Your task to perform on an android device: toggle location history Image 0: 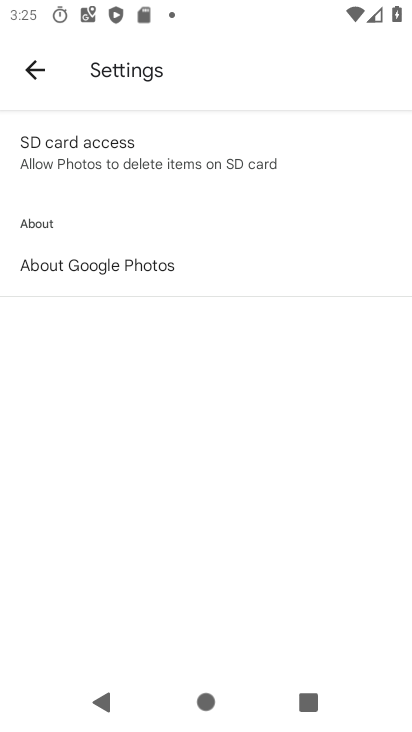
Step 0: press home button
Your task to perform on an android device: toggle location history Image 1: 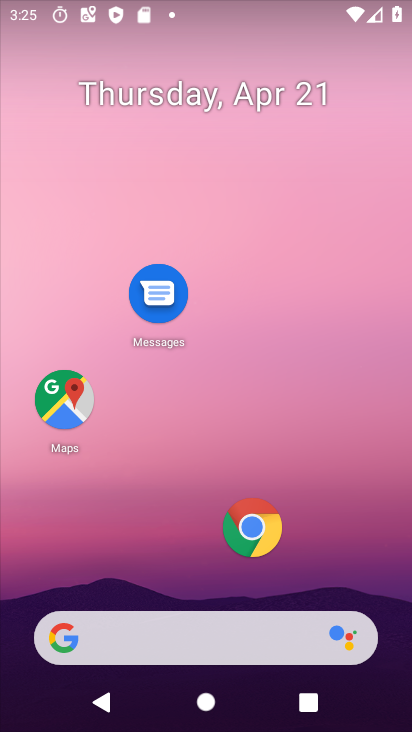
Step 1: drag from (165, 612) to (237, 352)
Your task to perform on an android device: toggle location history Image 2: 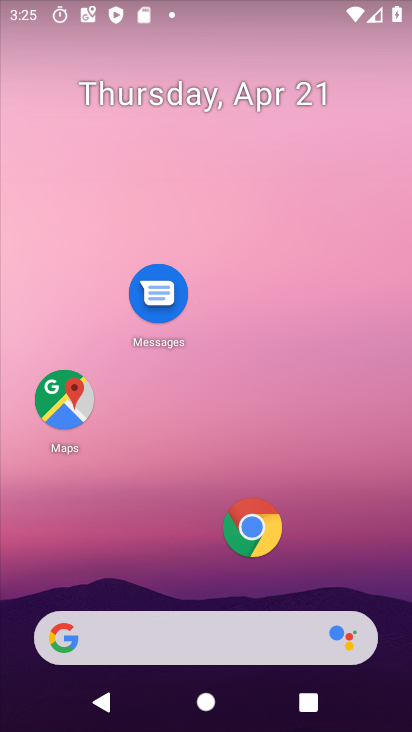
Step 2: drag from (238, 596) to (284, 332)
Your task to perform on an android device: toggle location history Image 3: 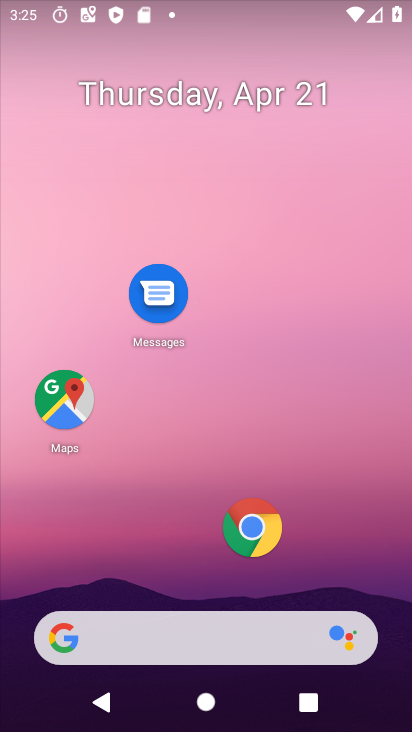
Step 3: drag from (206, 543) to (296, 132)
Your task to perform on an android device: toggle location history Image 4: 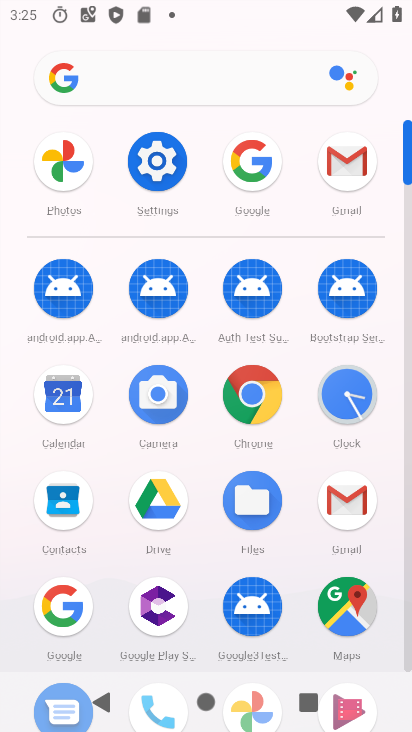
Step 4: click (152, 162)
Your task to perform on an android device: toggle location history Image 5: 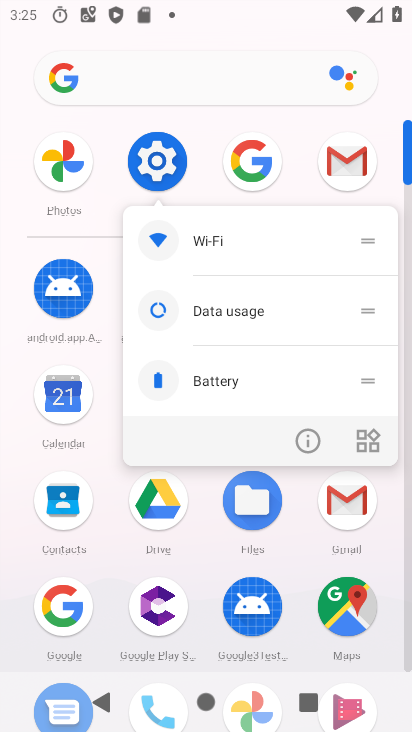
Step 5: click (152, 162)
Your task to perform on an android device: toggle location history Image 6: 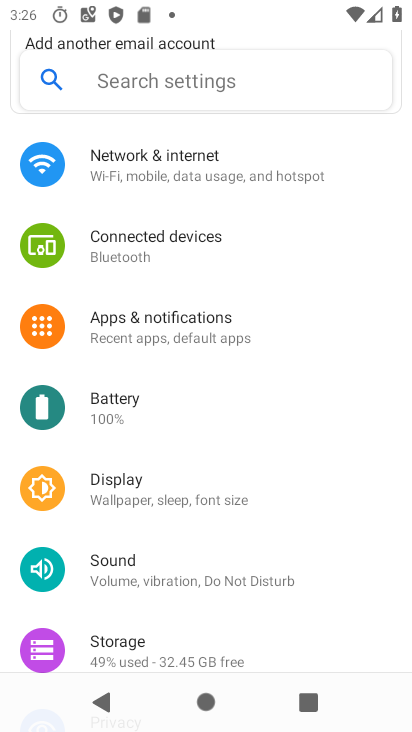
Step 6: drag from (291, 636) to (328, 368)
Your task to perform on an android device: toggle location history Image 7: 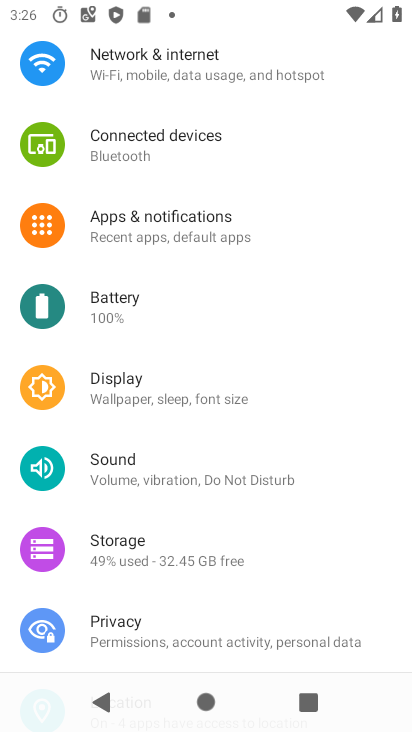
Step 7: drag from (216, 596) to (245, 207)
Your task to perform on an android device: toggle location history Image 8: 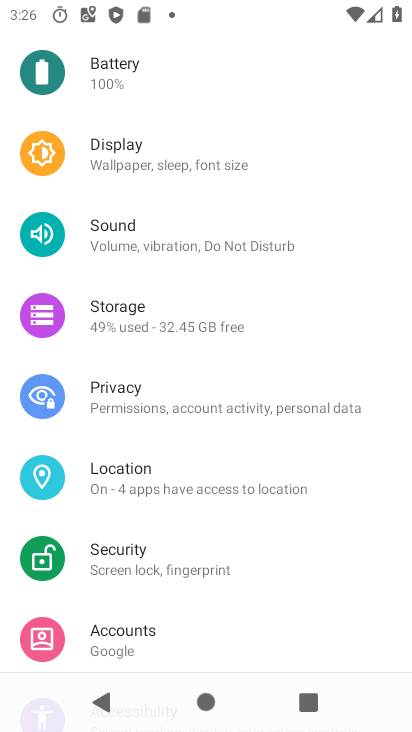
Step 8: click (115, 480)
Your task to perform on an android device: toggle location history Image 9: 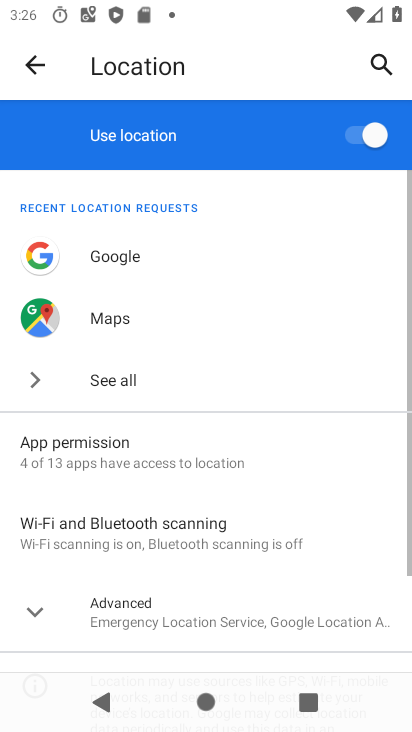
Step 9: click (163, 622)
Your task to perform on an android device: toggle location history Image 10: 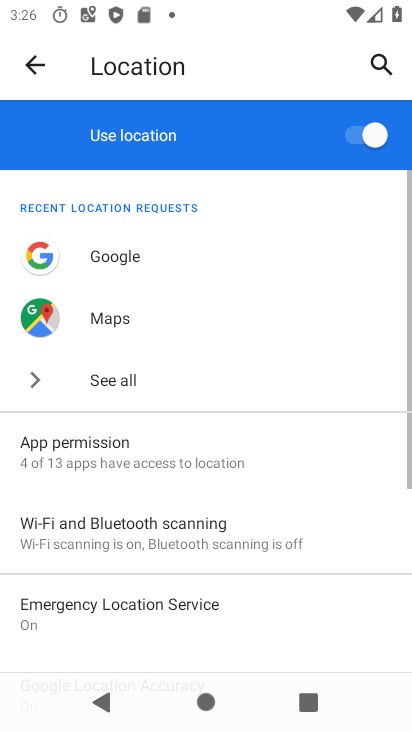
Step 10: drag from (234, 641) to (269, 355)
Your task to perform on an android device: toggle location history Image 11: 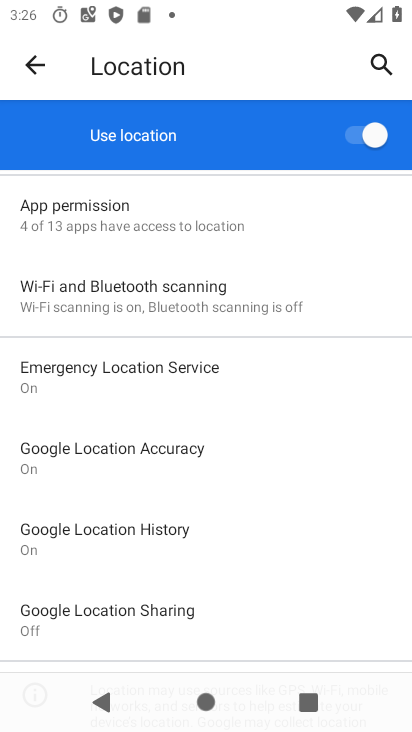
Step 11: click (126, 532)
Your task to perform on an android device: toggle location history Image 12: 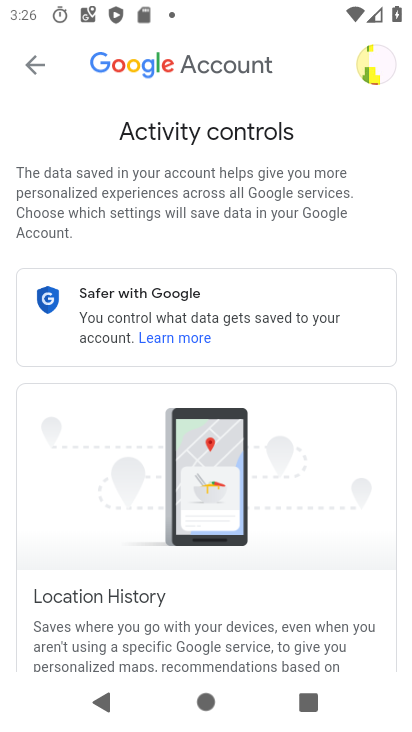
Step 12: drag from (347, 631) to (374, 352)
Your task to perform on an android device: toggle location history Image 13: 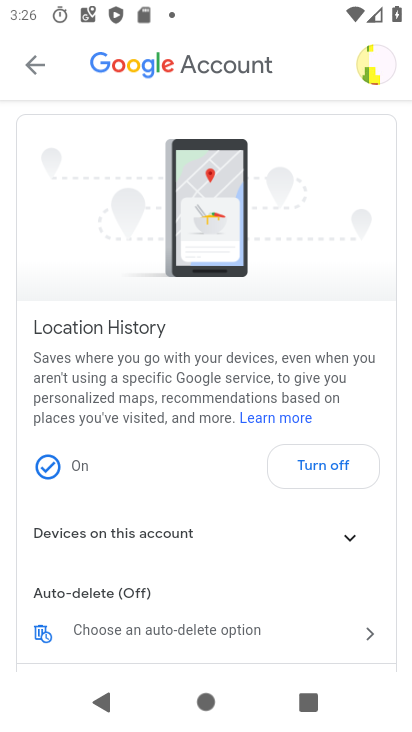
Step 13: click (311, 464)
Your task to perform on an android device: toggle location history Image 14: 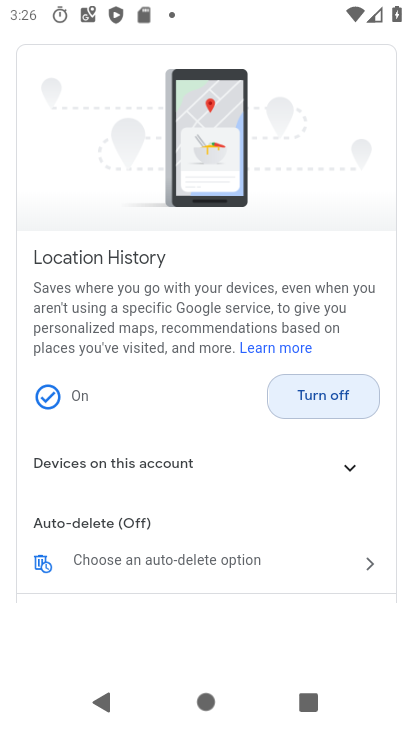
Step 14: click (311, 463)
Your task to perform on an android device: toggle location history Image 15: 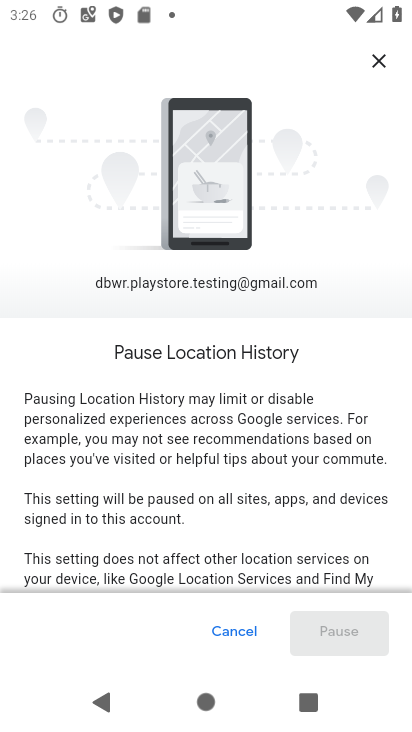
Step 15: drag from (333, 549) to (388, 133)
Your task to perform on an android device: toggle location history Image 16: 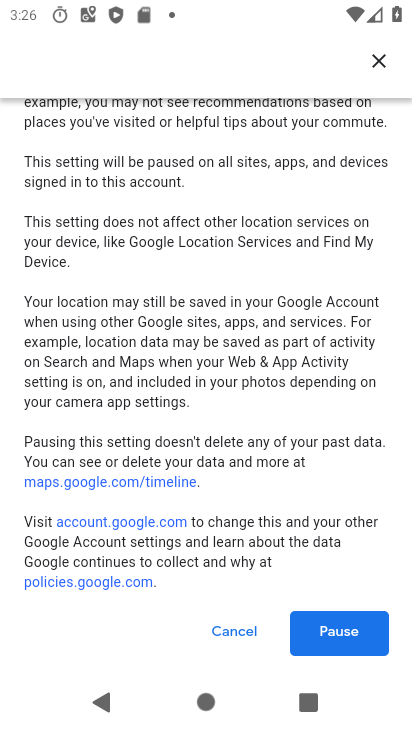
Step 16: click (336, 634)
Your task to perform on an android device: toggle location history Image 17: 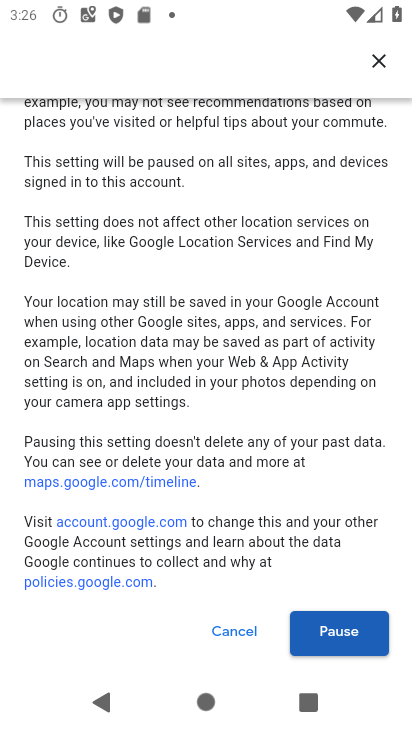
Step 17: click (336, 637)
Your task to perform on an android device: toggle location history Image 18: 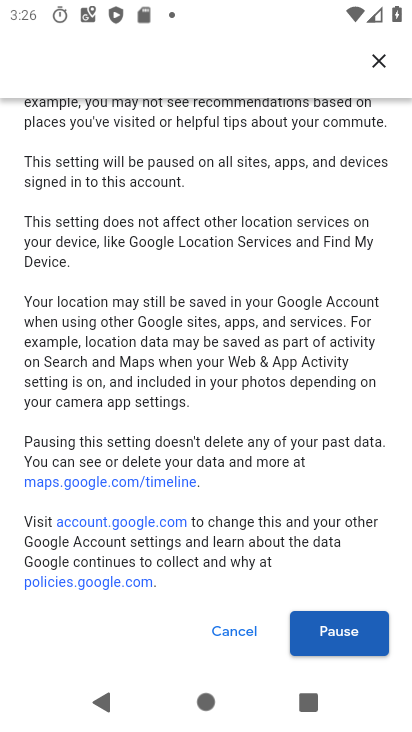
Step 18: click (336, 638)
Your task to perform on an android device: toggle location history Image 19: 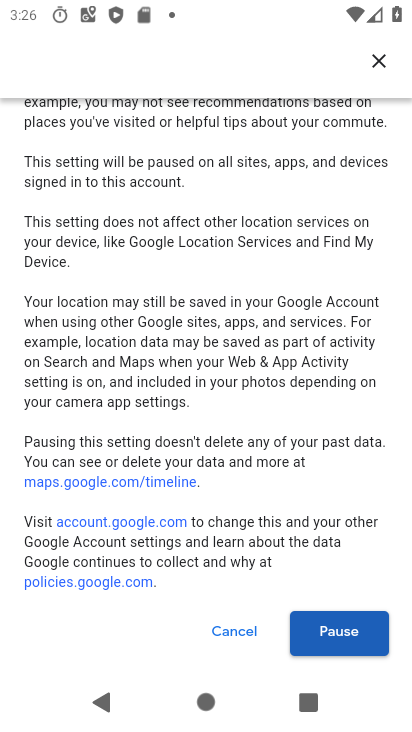
Step 19: click (334, 637)
Your task to perform on an android device: toggle location history Image 20: 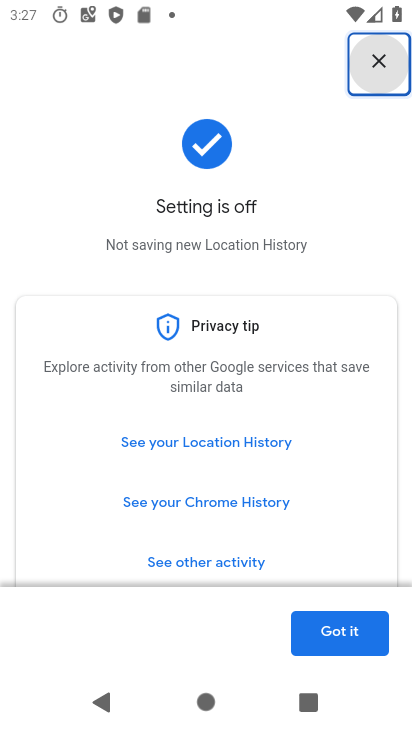
Step 20: click (338, 636)
Your task to perform on an android device: toggle location history Image 21: 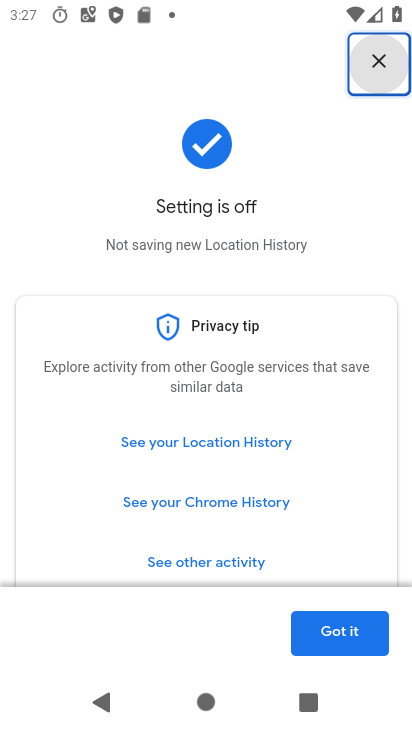
Step 21: click (338, 636)
Your task to perform on an android device: toggle location history Image 22: 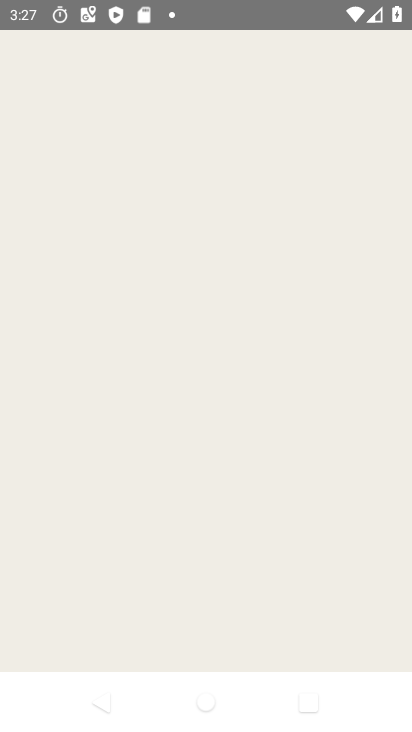
Step 22: task complete